Your task to perform on an android device: Open the calendar app, open the side menu, and click the "Day" option Image 0: 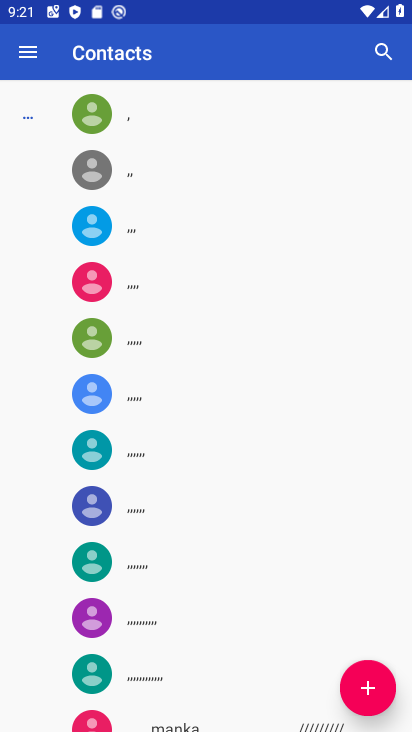
Step 0: press home button
Your task to perform on an android device: Open the calendar app, open the side menu, and click the "Day" option Image 1: 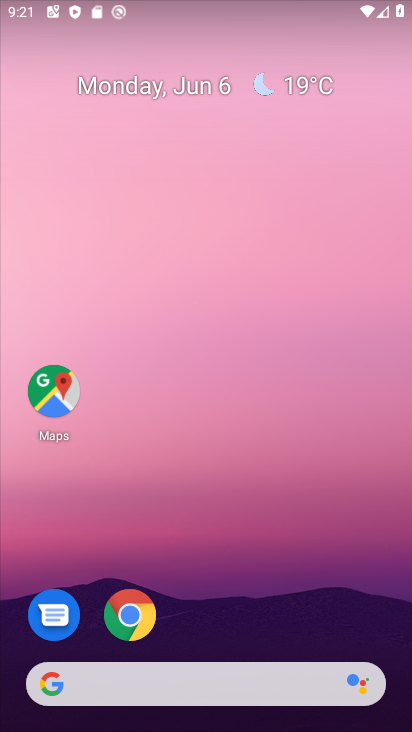
Step 1: drag from (206, 652) to (167, 260)
Your task to perform on an android device: Open the calendar app, open the side menu, and click the "Day" option Image 2: 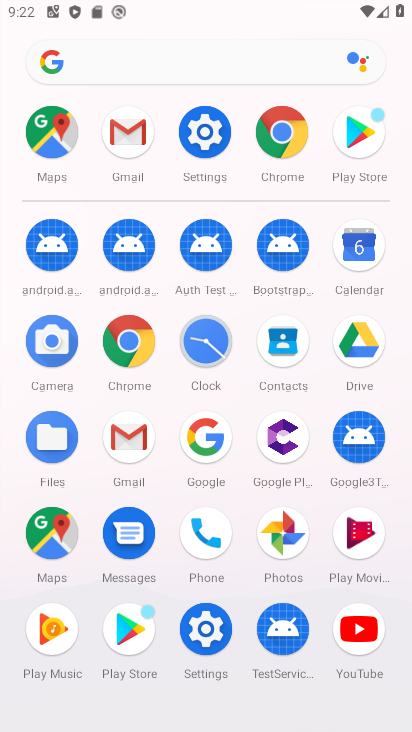
Step 2: click (354, 267)
Your task to perform on an android device: Open the calendar app, open the side menu, and click the "Day" option Image 3: 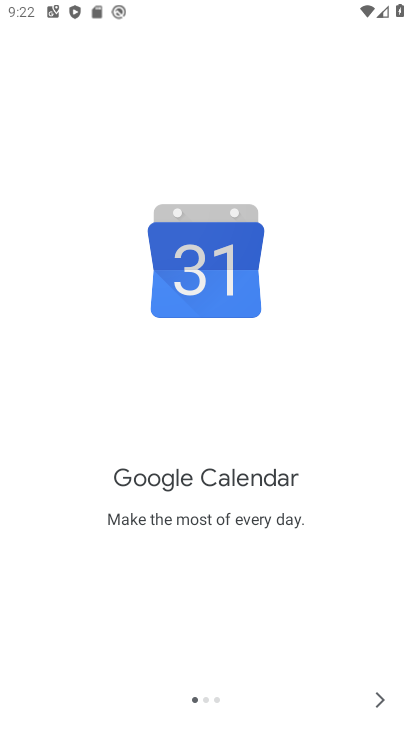
Step 3: click (384, 701)
Your task to perform on an android device: Open the calendar app, open the side menu, and click the "Day" option Image 4: 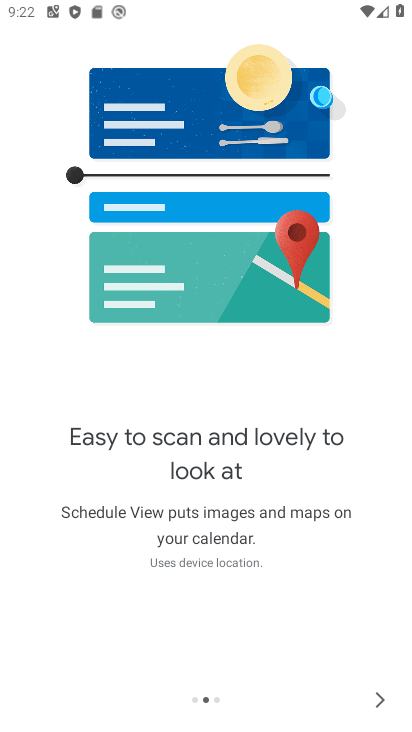
Step 4: click (384, 701)
Your task to perform on an android device: Open the calendar app, open the side menu, and click the "Day" option Image 5: 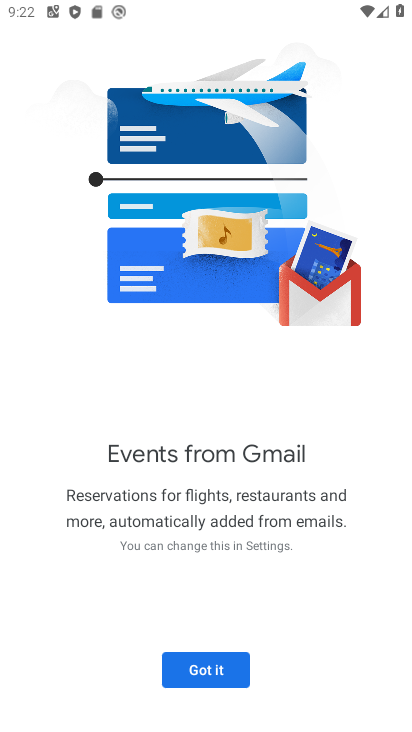
Step 5: click (187, 657)
Your task to perform on an android device: Open the calendar app, open the side menu, and click the "Day" option Image 6: 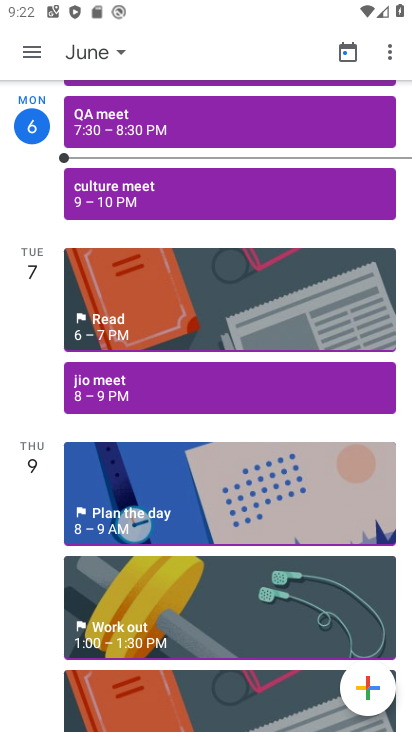
Step 6: click (26, 60)
Your task to perform on an android device: Open the calendar app, open the side menu, and click the "Day" option Image 7: 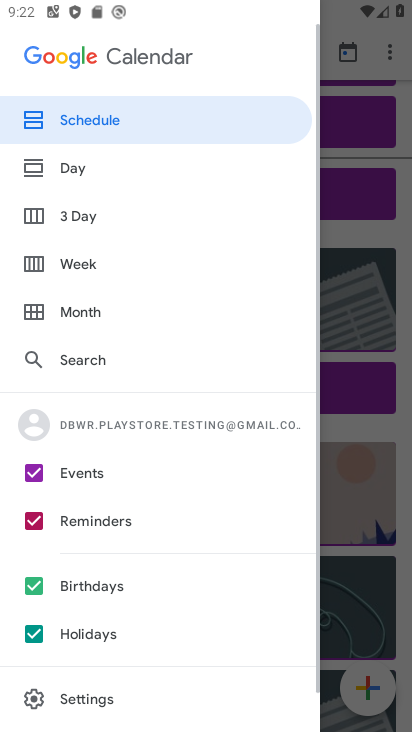
Step 7: click (71, 160)
Your task to perform on an android device: Open the calendar app, open the side menu, and click the "Day" option Image 8: 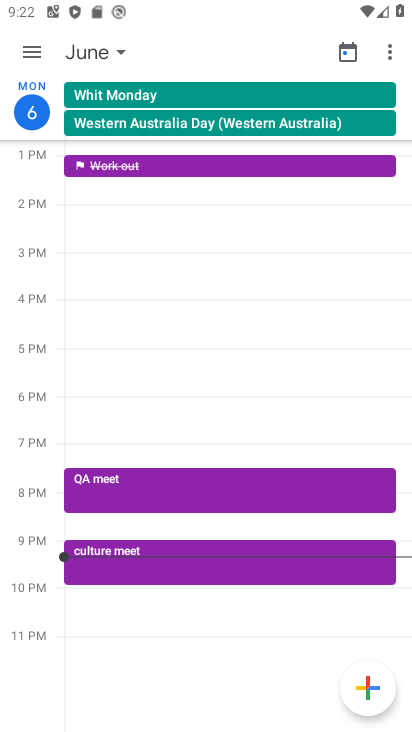
Step 8: task complete